Your task to perform on an android device: Open the calendar and show me this week's events? Image 0: 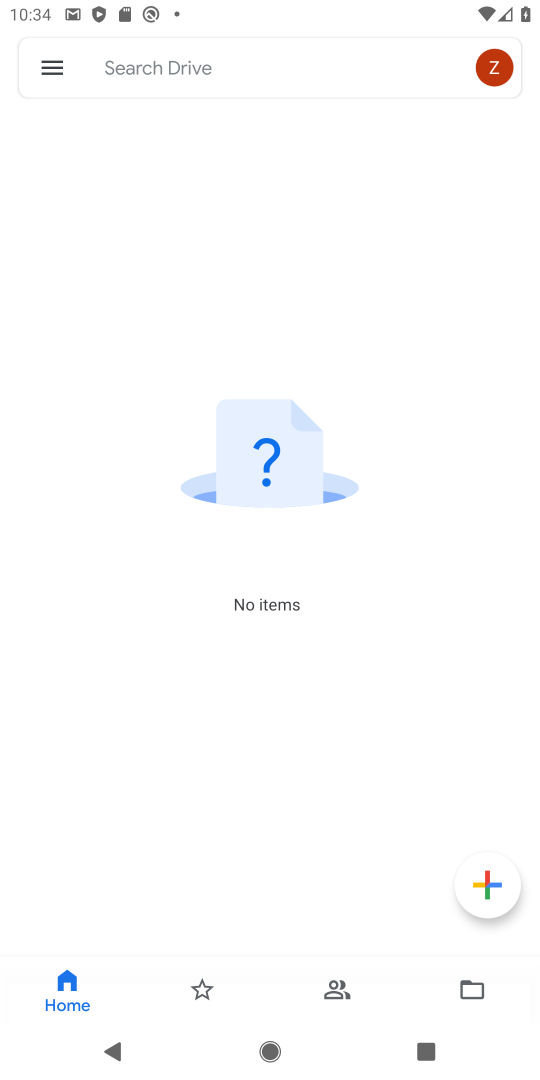
Step 0: press back button
Your task to perform on an android device: Open the calendar and show me this week's events? Image 1: 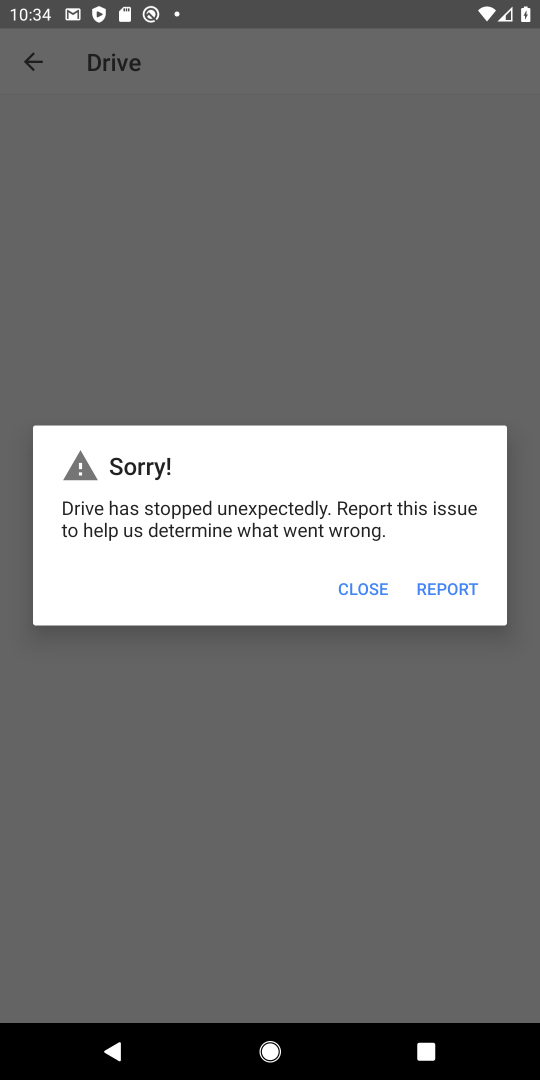
Step 1: press back button
Your task to perform on an android device: Open the calendar and show me this week's events? Image 2: 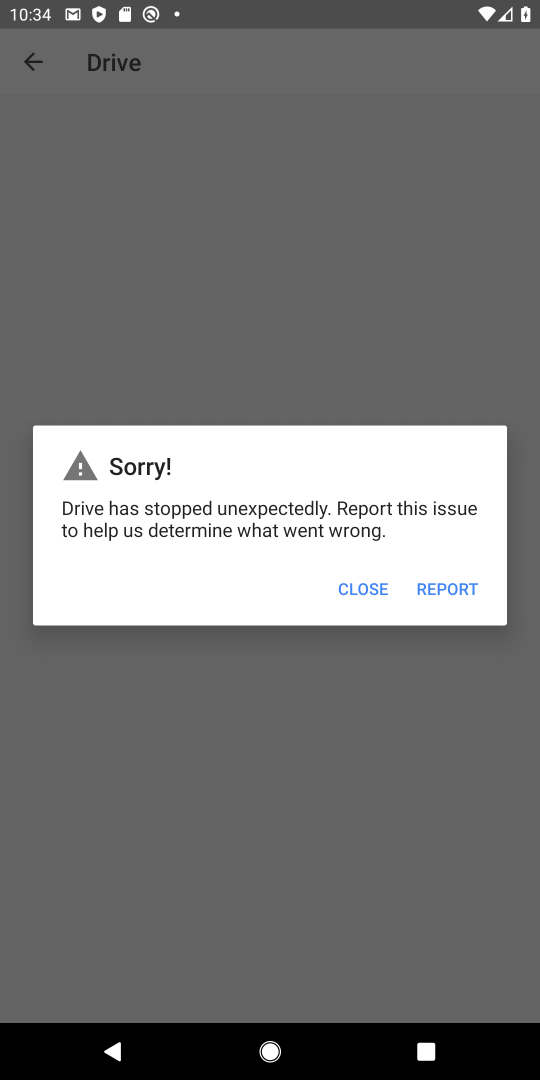
Step 2: press home button
Your task to perform on an android device: Open the calendar and show me this week's events? Image 3: 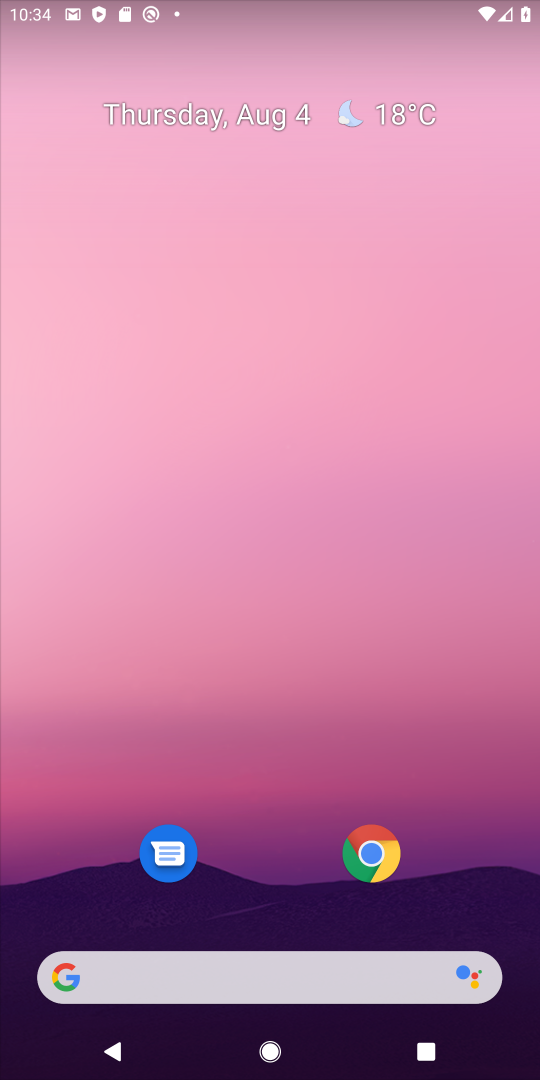
Step 3: drag from (276, 946) to (273, 180)
Your task to perform on an android device: Open the calendar and show me this week's events? Image 4: 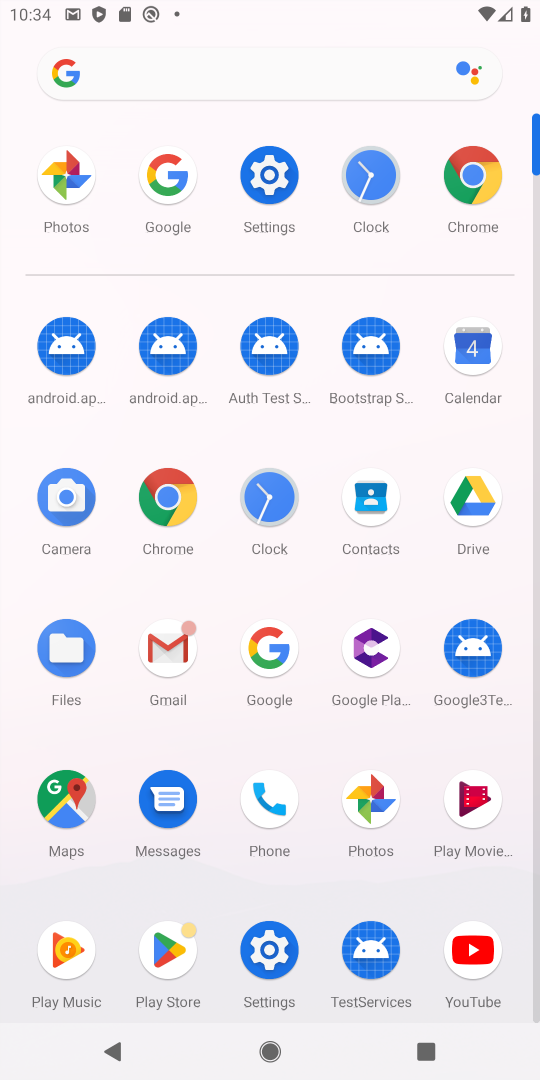
Step 4: click (464, 344)
Your task to perform on an android device: Open the calendar and show me this week's events? Image 5: 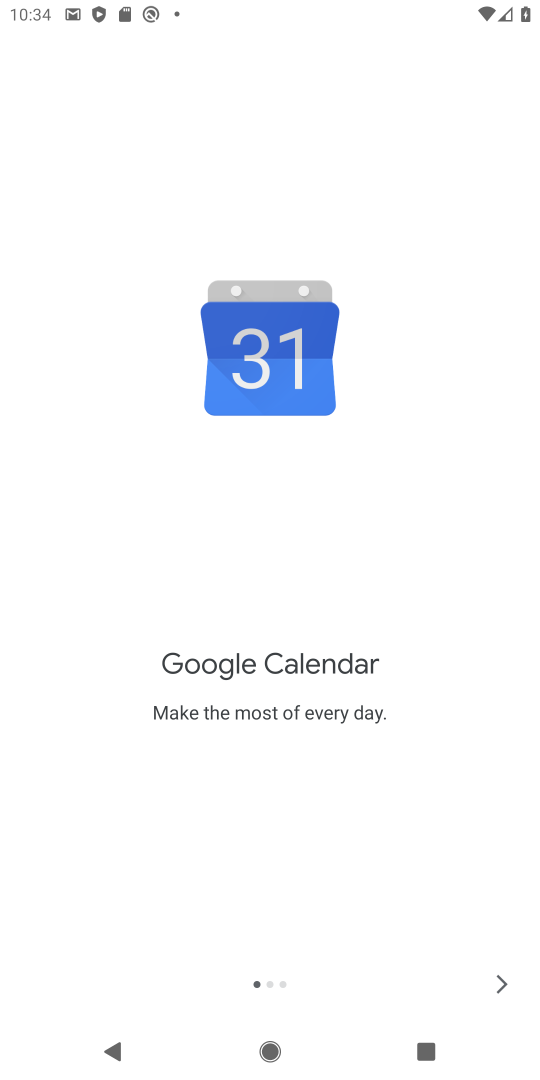
Step 5: click (495, 978)
Your task to perform on an android device: Open the calendar and show me this week's events? Image 6: 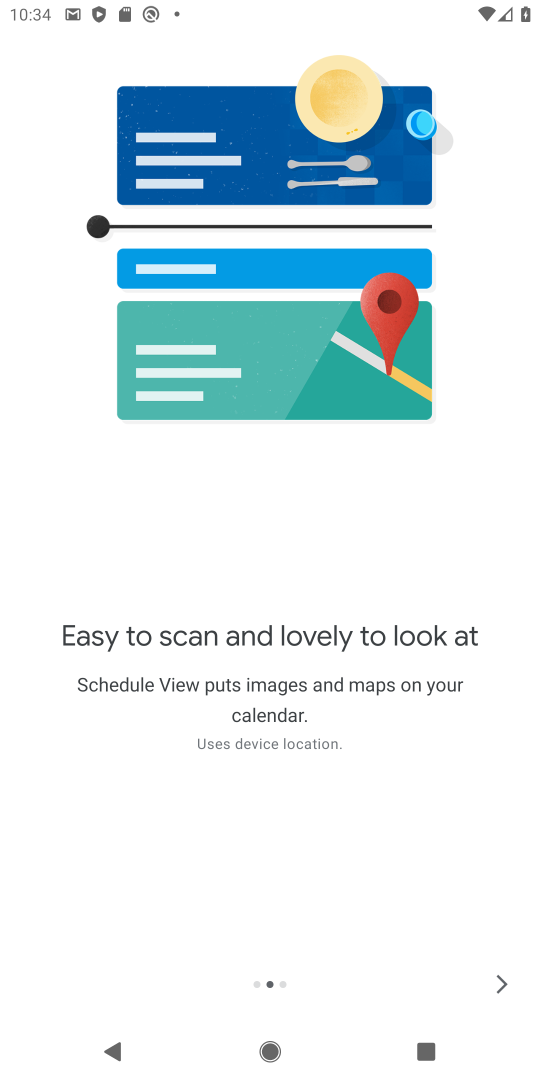
Step 6: click (495, 978)
Your task to perform on an android device: Open the calendar and show me this week's events? Image 7: 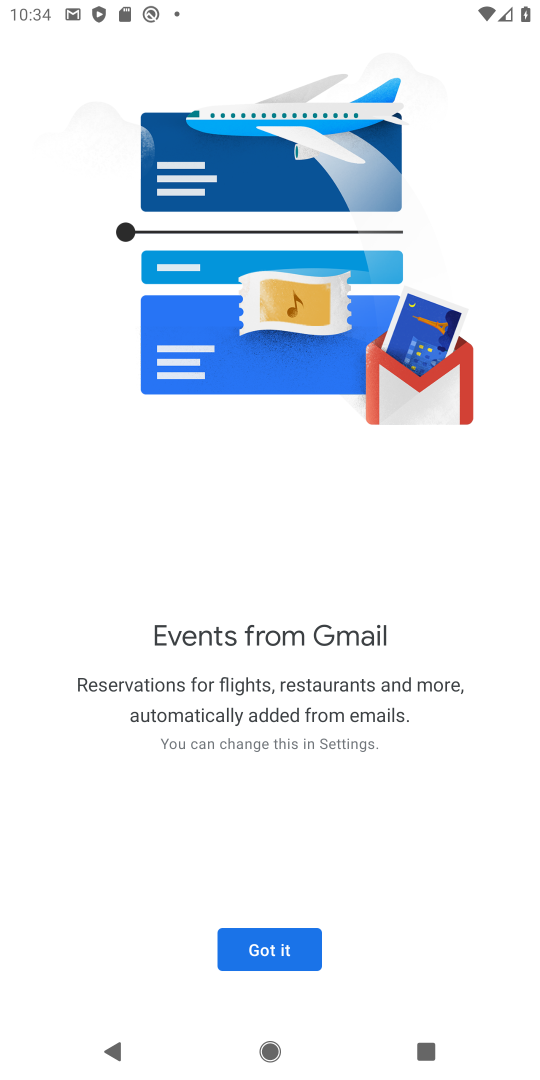
Step 7: click (287, 950)
Your task to perform on an android device: Open the calendar and show me this week's events? Image 8: 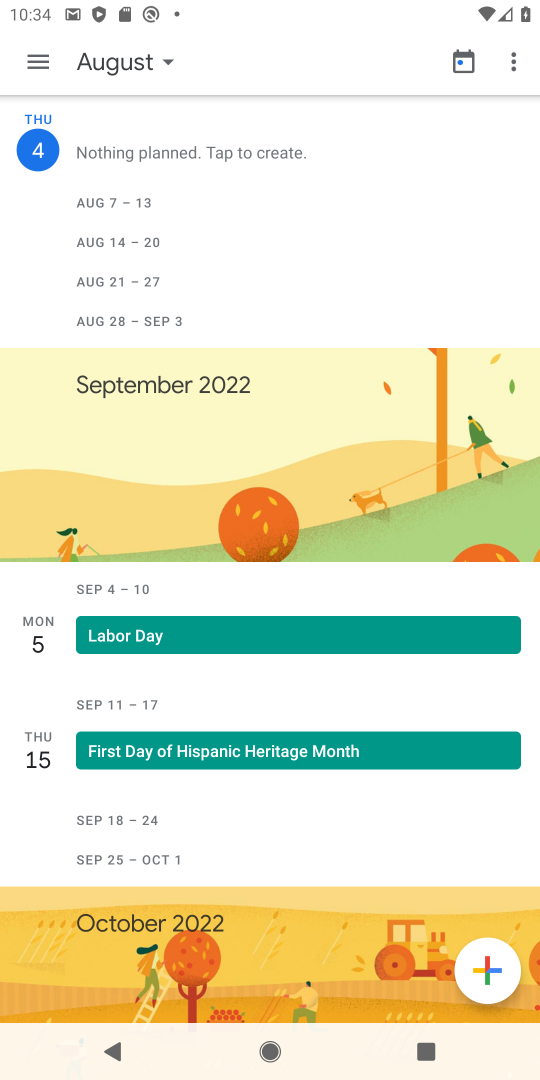
Step 8: click (20, 61)
Your task to perform on an android device: Open the calendar and show me this week's events? Image 9: 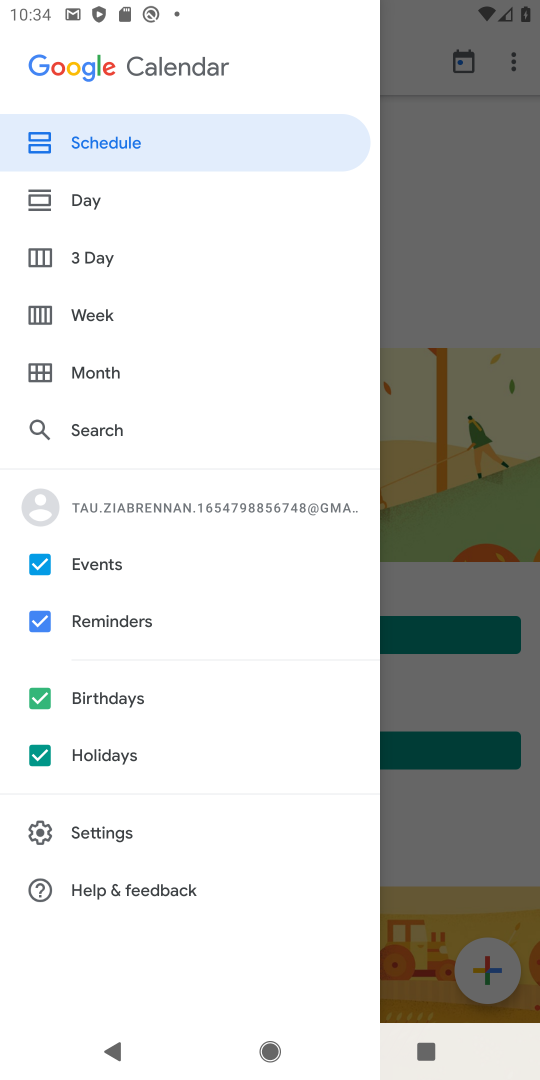
Step 9: click (114, 311)
Your task to perform on an android device: Open the calendar and show me this week's events? Image 10: 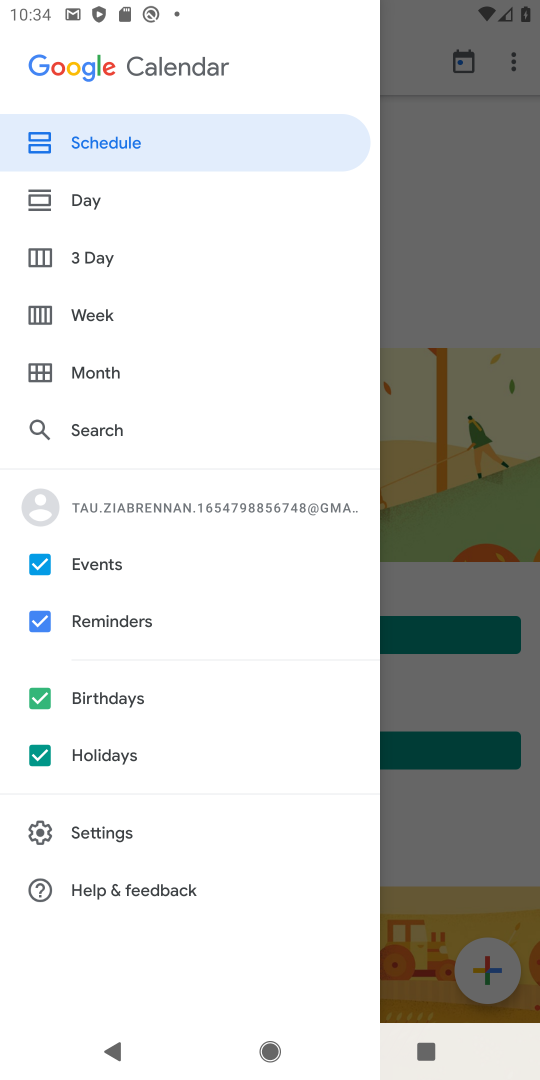
Step 10: click (90, 316)
Your task to perform on an android device: Open the calendar and show me this week's events? Image 11: 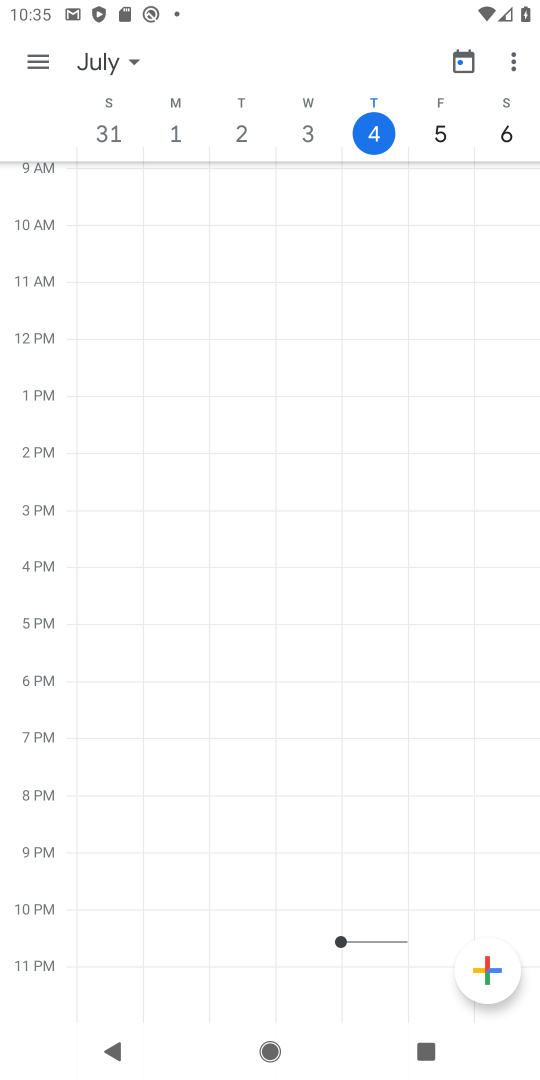
Step 11: task complete